Your task to perform on an android device: Open Google Chrome and click the shortcut for Amazon.com Image 0: 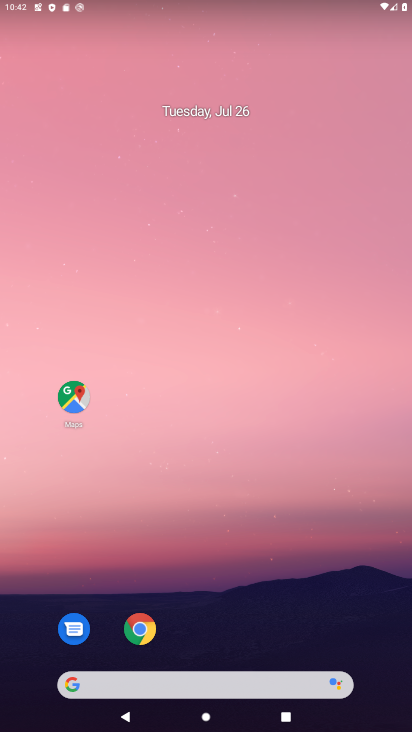
Step 0: click (150, 629)
Your task to perform on an android device: Open Google Chrome and click the shortcut for Amazon.com Image 1: 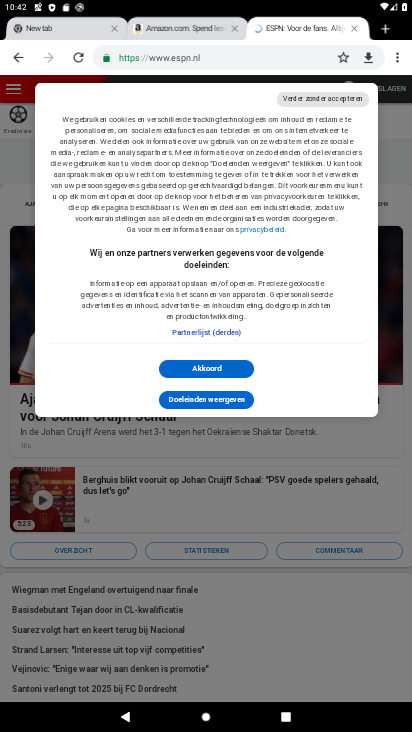
Step 1: click (186, 375)
Your task to perform on an android device: Open Google Chrome and click the shortcut for Amazon.com Image 2: 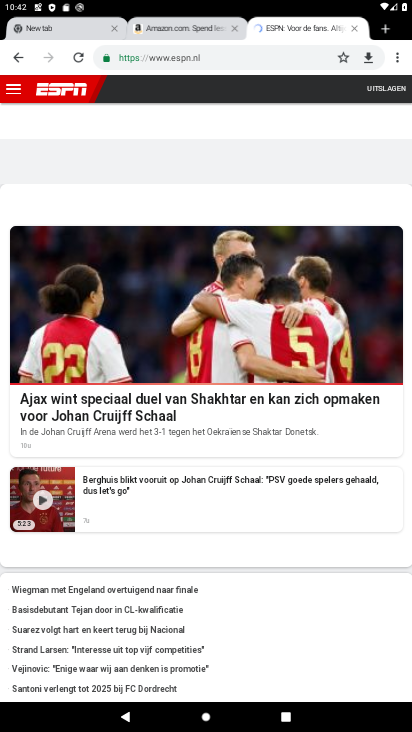
Step 2: click (191, 20)
Your task to perform on an android device: Open Google Chrome and click the shortcut for Amazon.com Image 3: 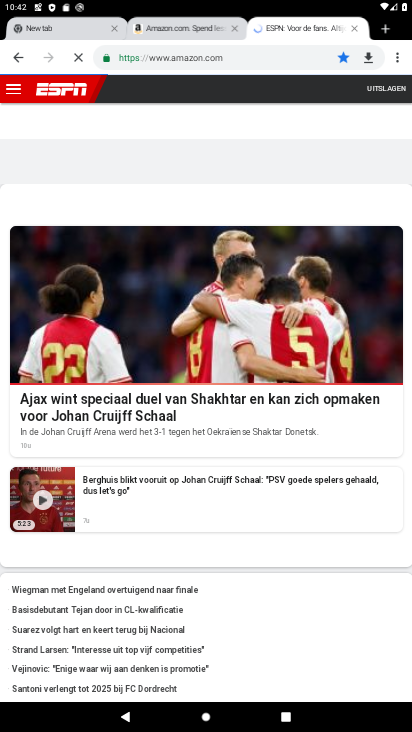
Step 3: task complete